Your task to perform on an android device: turn notification dots off Image 0: 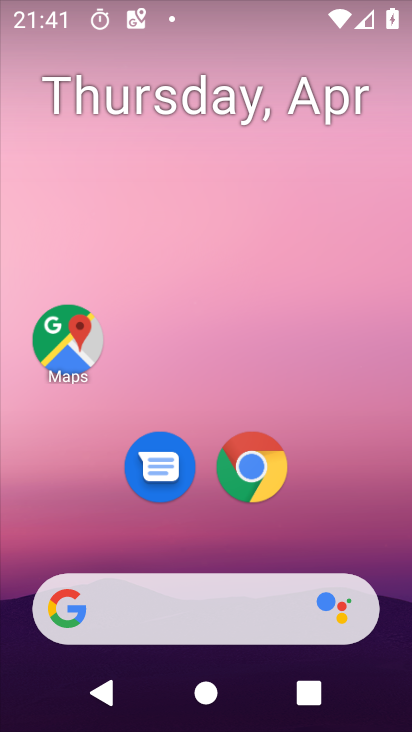
Step 0: drag from (246, 552) to (271, 582)
Your task to perform on an android device: turn notification dots off Image 1: 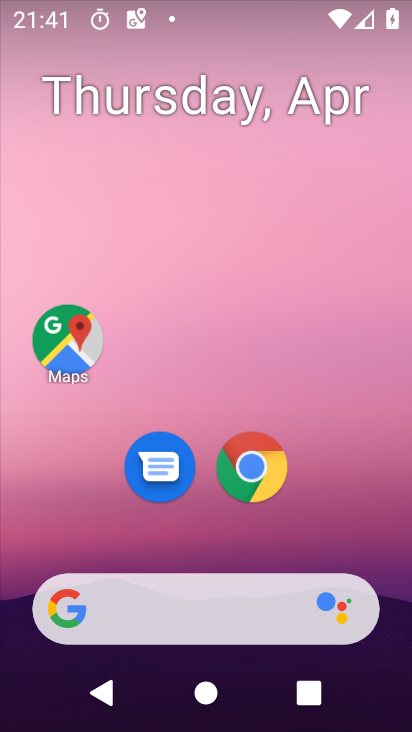
Step 1: drag from (187, 551) to (170, 33)
Your task to perform on an android device: turn notification dots off Image 2: 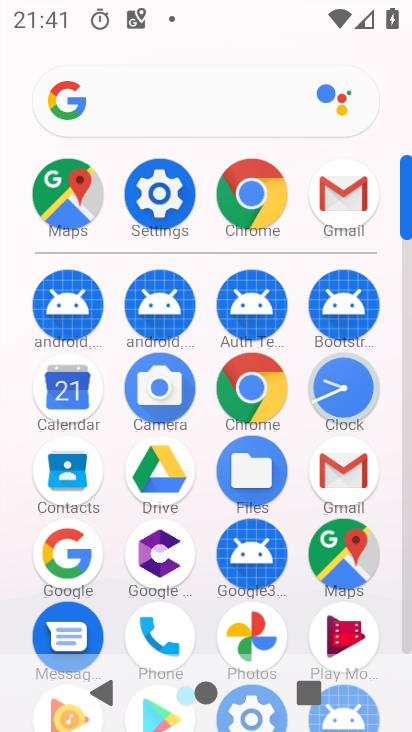
Step 2: click (162, 194)
Your task to perform on an android device: turn notification dots off Image 3: 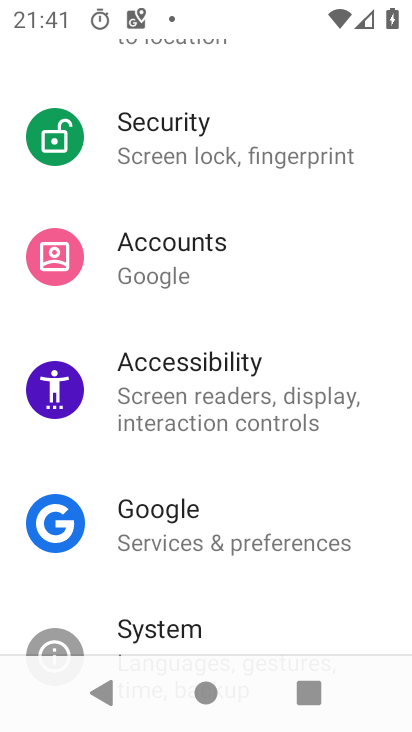
Step 3: drag from (254, 485) to (258, 60)
Your task to perform on an android device: turn notification dots off Image 4: 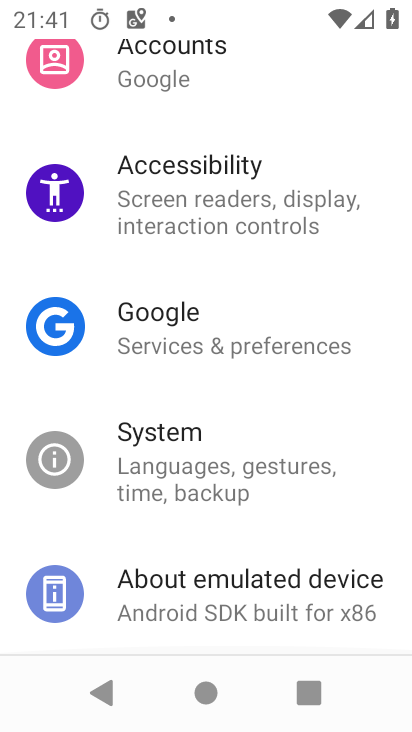
Step 4: drag from (258, 193) to (256, 679)
Your task to perform on an android device: turn notification dots off Image 5: 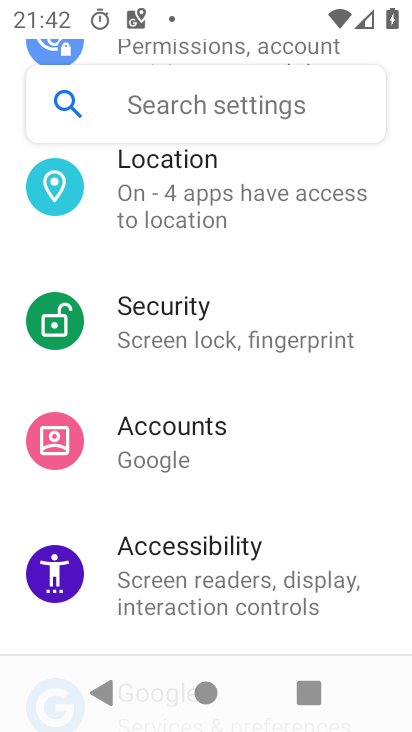
Step 5: drag from (231, 301) to (236, 508)
Your task to perform on an android device: turn notification dots off Image 6: 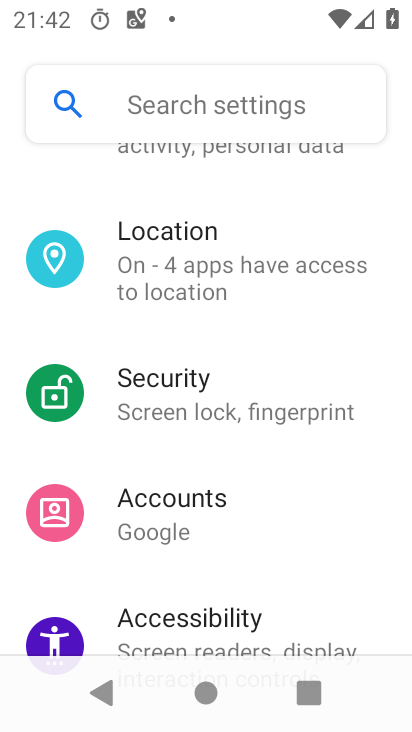
Step 6: drag from (249, 214) to (233, 552)
Your task to perform on an android device: turn notification dots off Image 7: 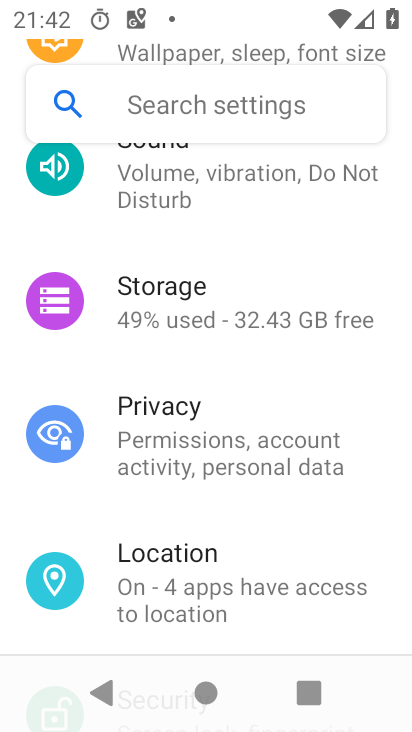
Step 7: drag from (238, 209) to (228, 622)
Your task to perform on an android device: turn notification dots off Image 8: 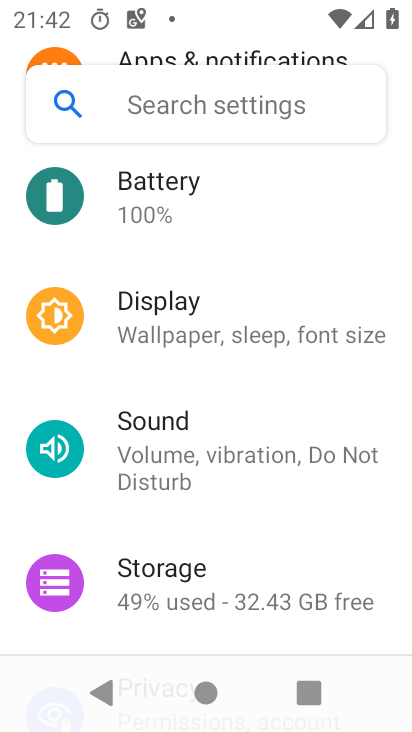
Step 8: drag from (253, 215) to (273, 572)
Your task to perform on an android device: turn notification dots off Image 9: 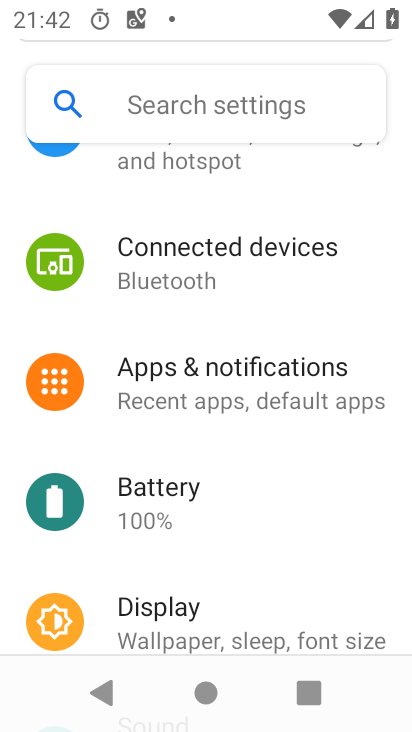
Step 9: click (243, 376)
Your task to perform on an android device: turn notification dots off Image 10: 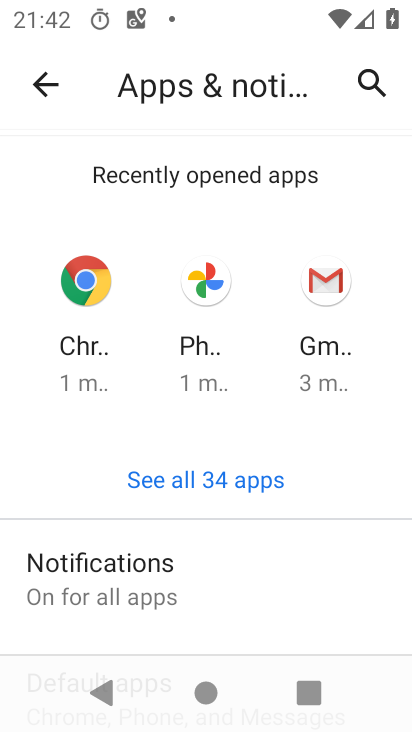
Step 10: drag from (245, 626) to (272, 163)
Your task to perform on an android device: turn notification dots off Image 11: 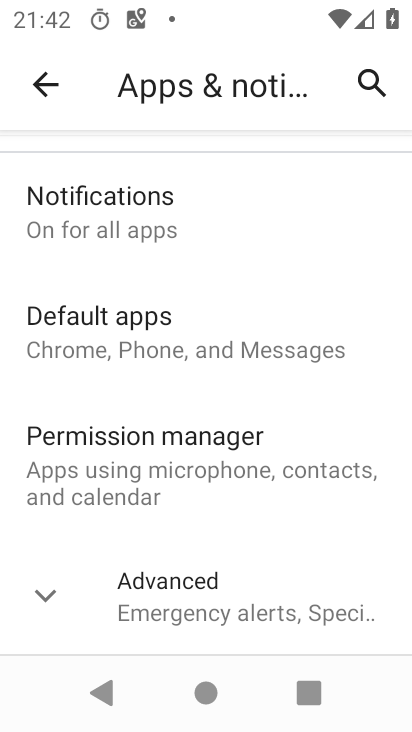
Step 11: click (187, 231)
Your task to perform on an android device: turn notification dots off Image 12: 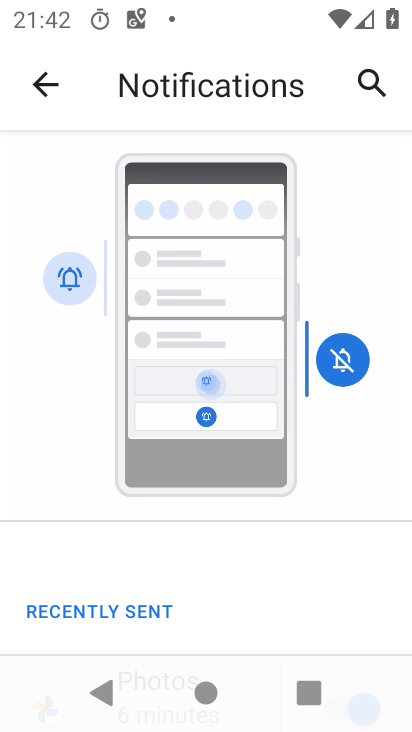
Step 12: drag from (298, 529) to (289, 78)
Your task to perform on an android device: turn notification dots off Image 13: 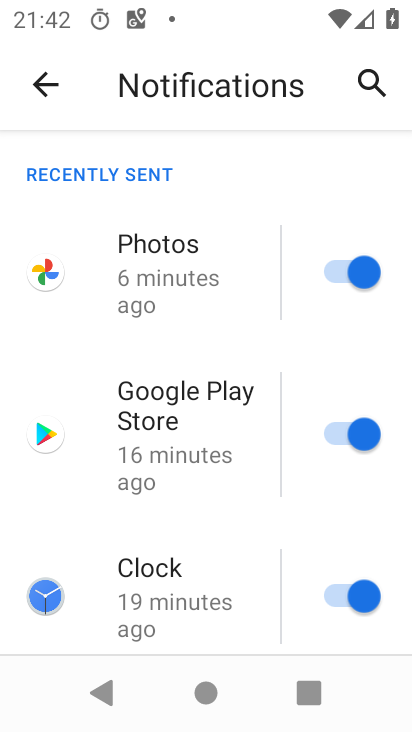
Step 13: drag from (178, 580) to (183, 130)
Your task to perform on an android device: turn notification dots off Image 14: 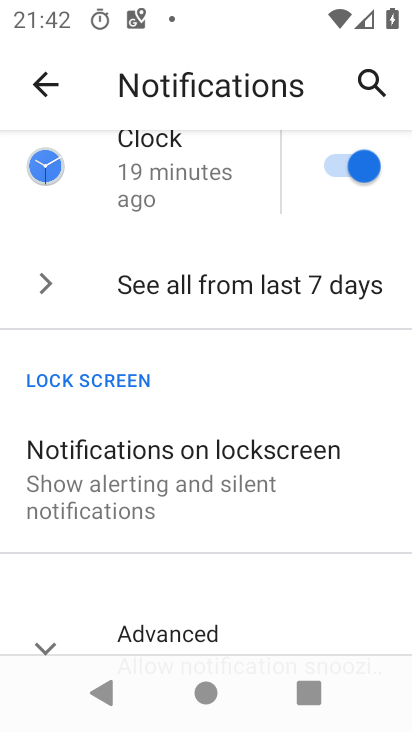
Step 14: drag from (176, 607) to (187, 133)
Your task to perform on an android device: turn notification dots off Image 15: 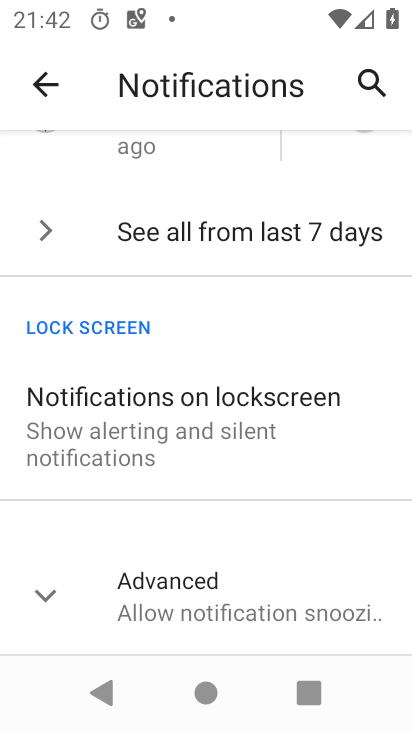
Step 15: click (190, 619)
Your task to perform on an android device: turn notification dots off Image 16: 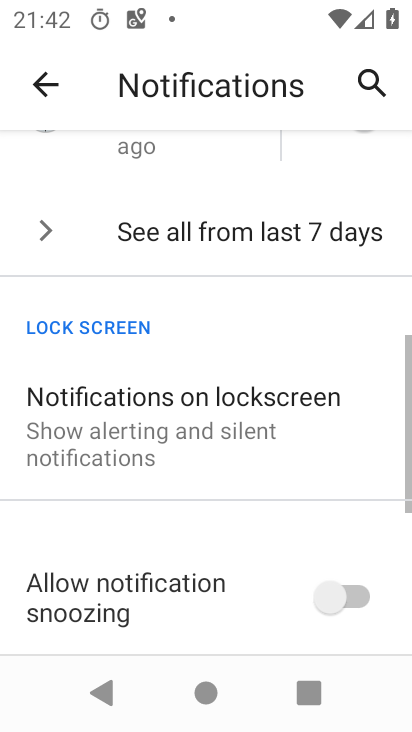
Step 16: drag from (240, 582) to (272, 84)
Your task to perform on an android device: turn notification dots off Image 17: 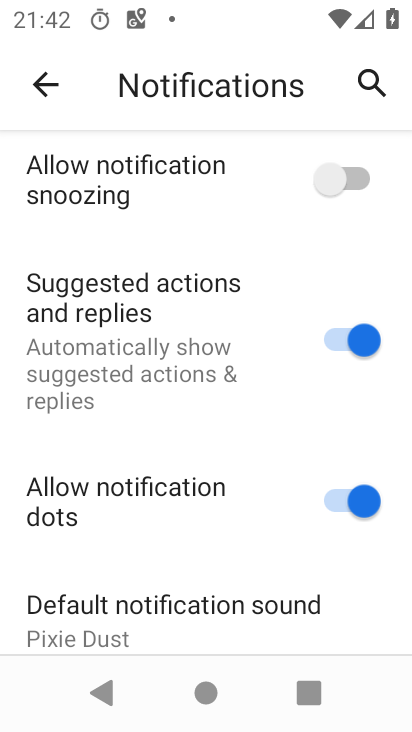
Step 17: click (329, 487)
Your task to perform on an android device: turn notification dots off Image 18: 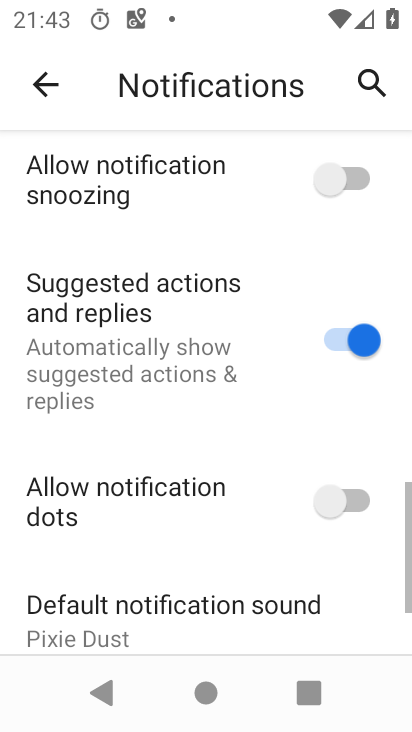
Step 18: task complete